Your task to perform on an android device: open a new tab in the chrome app Image 0: 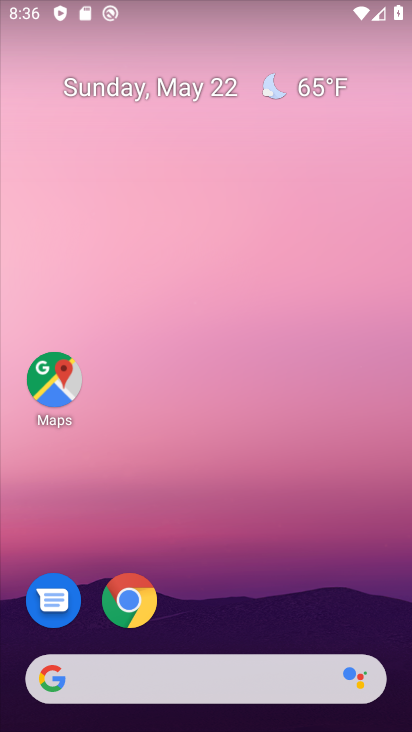
Step 0: click (148, 606)
Your task to perform on an android device: open a new tab in the chrome app Image 1: 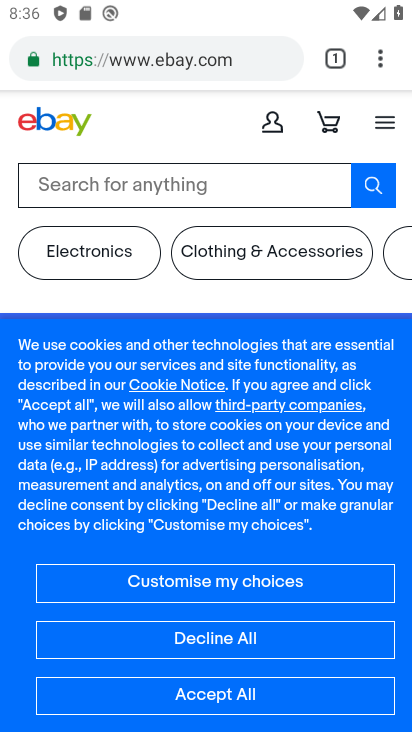
Step 1: click (338, 54)
Your task to perform on an android device: open a new tab in the chrome app Image 2: 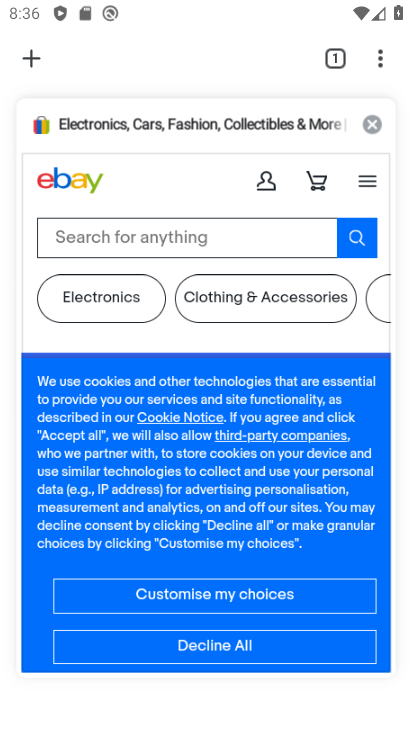
Step 2: click (29, 60)
Your task to perform on an android device: open a new tab in the chrome app Image 3: 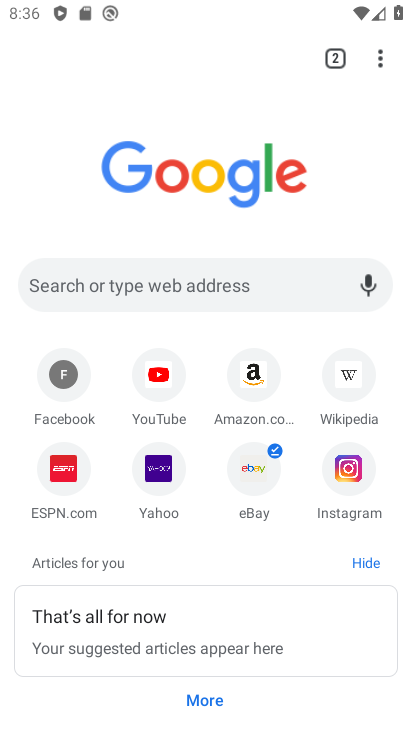
Step 3: task complete